Your task to perform on an android device: Do I have any events today? Image 0: 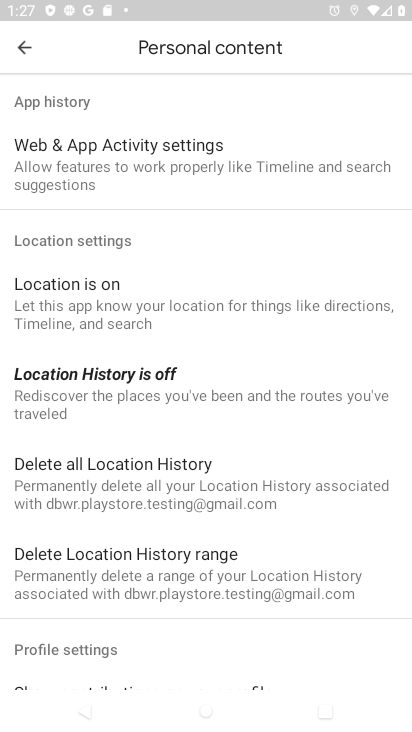
Step 0: press home button
Your task to perform on an android device: Do I have any events today? Image 1: 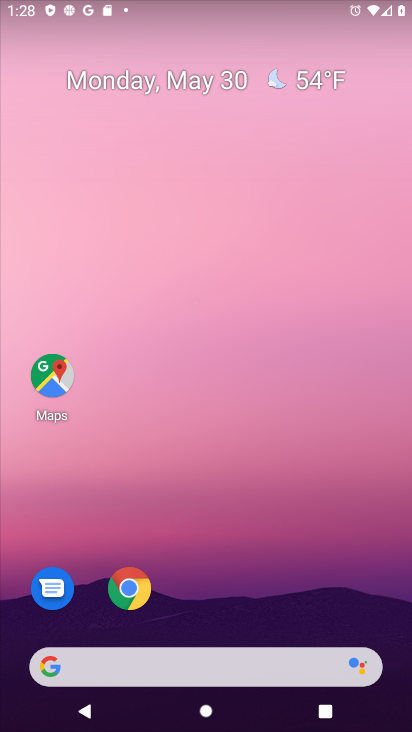
Step 1: drag from (251, 546) to (188, 98)
Your task to perform on an android device: Do I have any events today? Image 2: 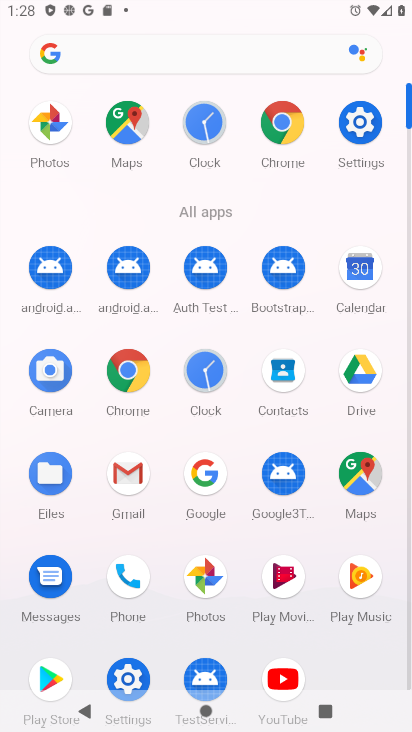
Step 2: click (360, 268)
Your task to perform on an android device: Do I have any events today? Image 3: 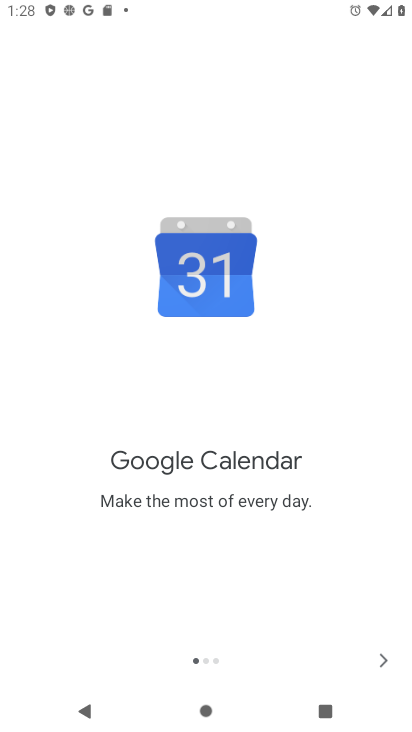
Step 3: click (383, 656)
Your task to perform on an android device: Do I have any events today? Image 4: 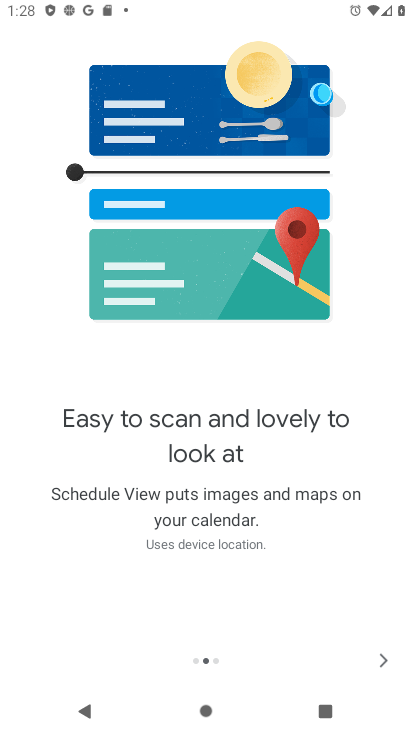
Step 4: click (383, 656)
Your task to perform on an android device: Do I have any events today? Image 5: 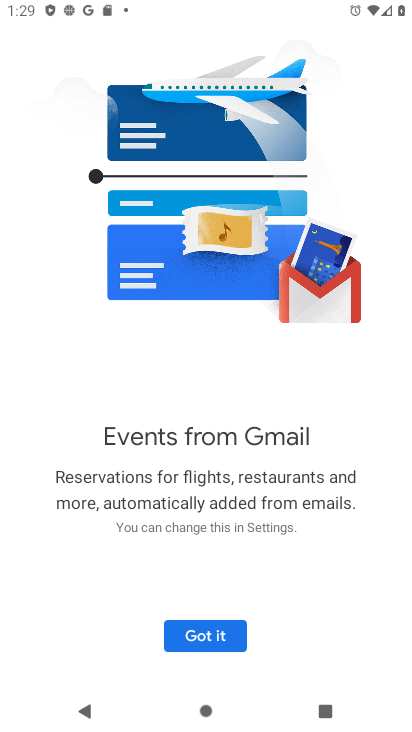
Step 5: click (218, 632)
Your task to perform on an android device: Do I have any events today? Image 6: 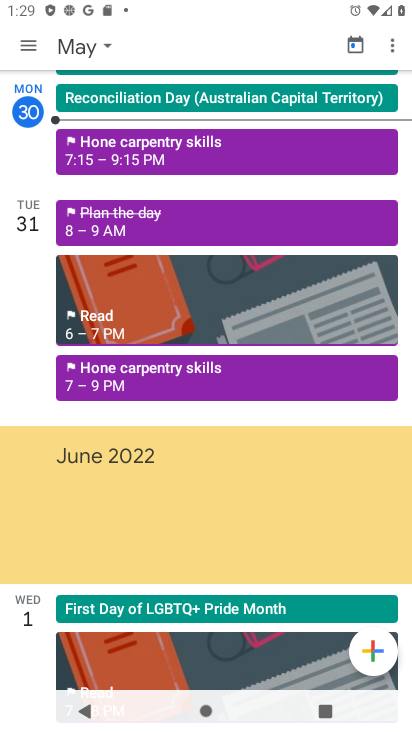
Step 6: click (107, 146)
Your task to perform on an android device: Do I have any events today? Image 7: 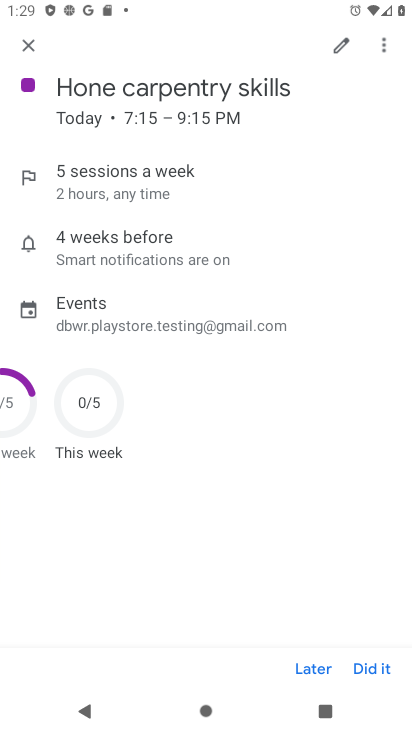
Step 7: task complete